Your task to perform on an android device: Empty the shopping cart on newegg.com. Search for "razer thresher" on newegg.com, select the first entry, and add it to the cart. Image 0: 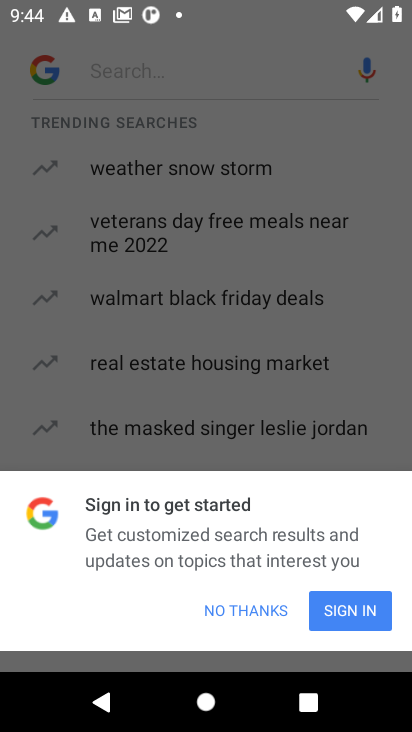
Step 0: press home button
Your task to perform on an android device: Empty the shopping cart on newegg.com. Search for "razer thresher" on newegg.com, select the first entry, and add it to the cart. Image 1: 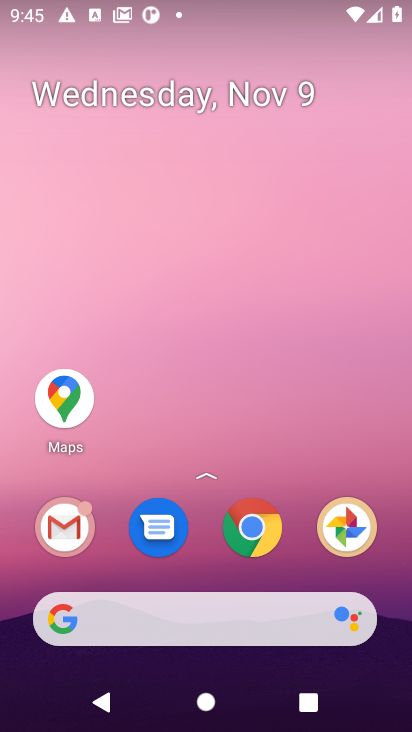
Step 1: click (259, 521)
Your task to perform on an android device: Empty the shopping cart on newegg.com. Search for "razer thresher" on newegg.com, select the first entry, and add it to the cart. Image 2: 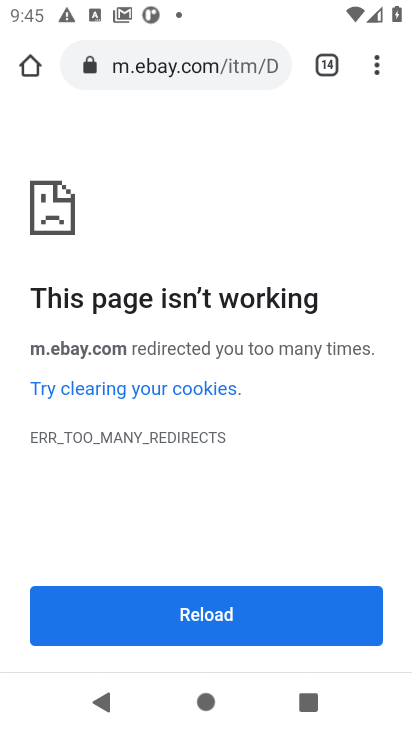
Step 2: click (157, 67)
Your task to perform on an android device: Empty the shopping cart on newegg.com. Search for "razer thresher" on newegg.com, select the first entry, and add it to the cart. Image 3: 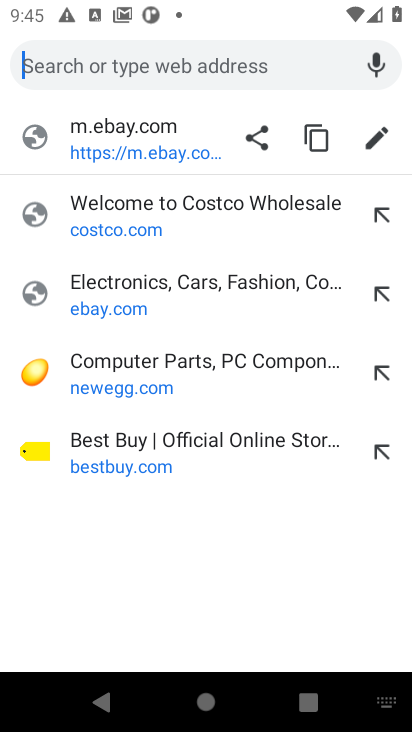
Step 3: click (103, 376)
Your task to perform on an android device: Empty the shopping cart on newegg.com. Search for "razer thresher" on newegg.com, select the first entry, and add it to the cart. Image 4: 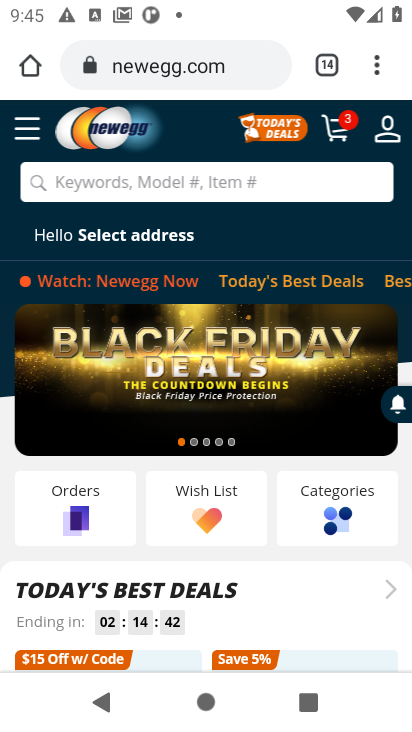
Step 4: click (340, 129)
Your task to perform on an android device: Empty the shopping cart on newegg.com. Search for "razer thresher" on newegg.com, select the first entry, and add it to the cart. Image 5: 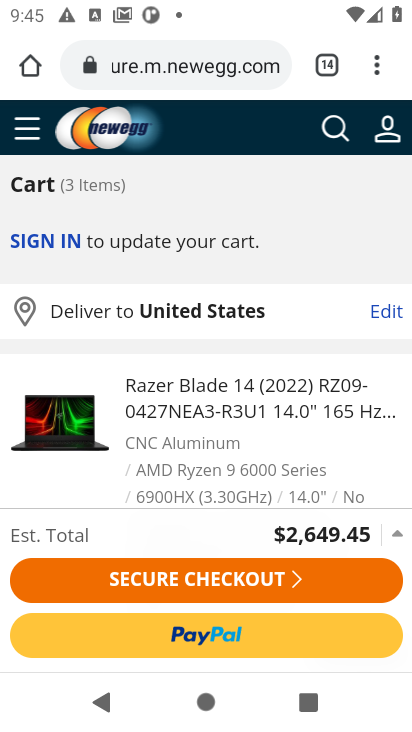
Step 5: drag from (234, 391) to (234, 237)
Your task to perform on an android device: Empty the shopping cart on newegg.com. Search for "razer thresher" on newegg.com, select the first entry, and add it to the cart. Image 6: 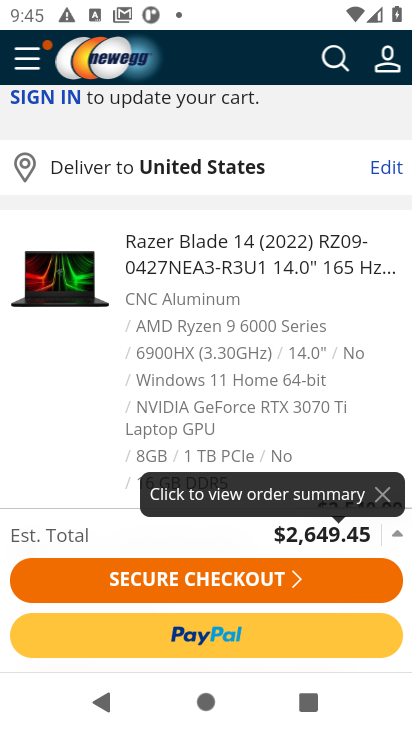
Step 6: drag from (164, 368) to (186, 201)
Your task to perform on an android device: Empty the shopping cart on newegg.com. Search for "razer thresher" on newegg.com, select the first entry, and add it to the cart. Image 7: 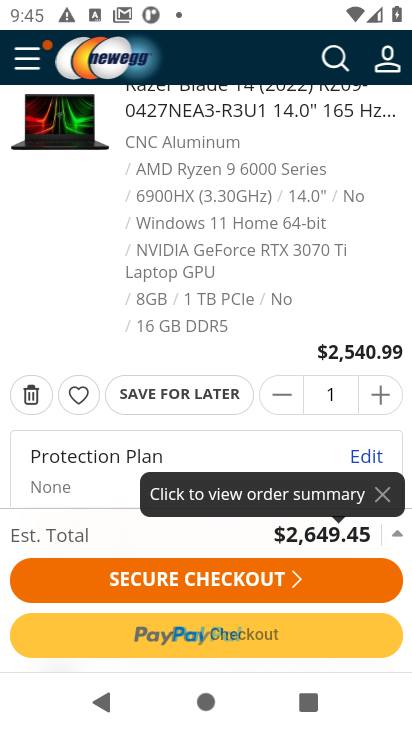
Step 7: click (36, 400)
Your task to perform on an android device: Empty the shopping cart on newegg.com. Search for "razer thresher" on newegg.com, select the first entry, and add it to the cart. Image 8: 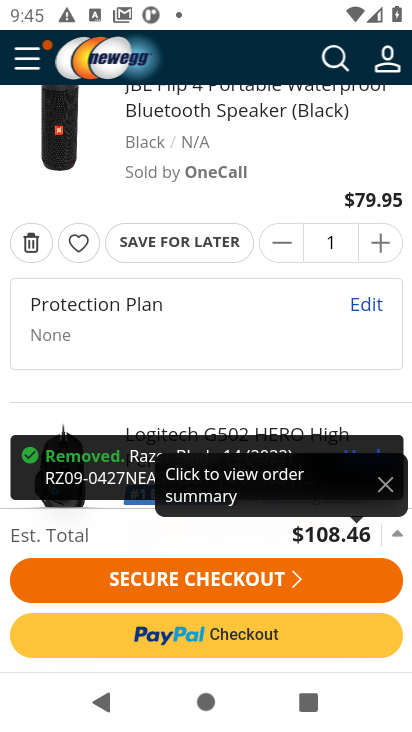
Step 8: click (34, 248)
Your task to perform on an android device: Empty the shopping cart on newegg.com. Search for "razer thresher" on newegg.com, select the first entry, and add it to the cart. Image 9: 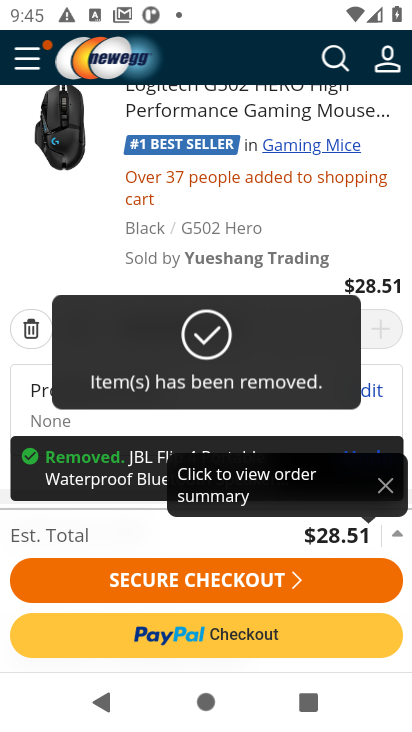
Step 9: click (32, 320)
Your task to perform on an android device: Empty the shopping cart on newegg.com. Search for "razer thresher" on newegg.com, select the first entry, and add it to the cart. Image 10: 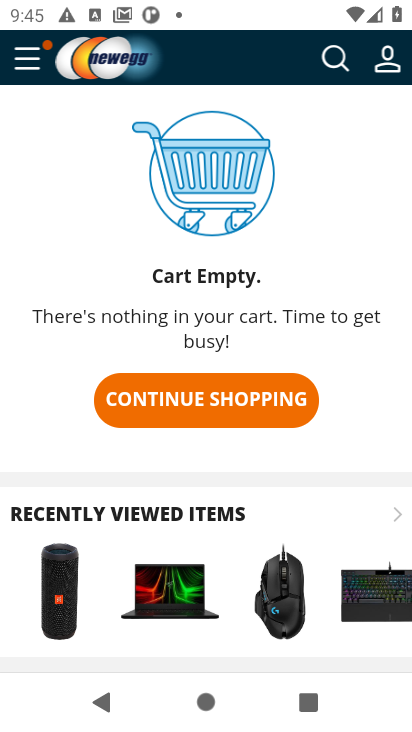
Step 10: click (333, 59)
Your task to perform on an android device: Empty the shopping cart on newegg.com. Search for "razer thresher" on newegg.com, select the first entry, and add it to the cart. Image 11: 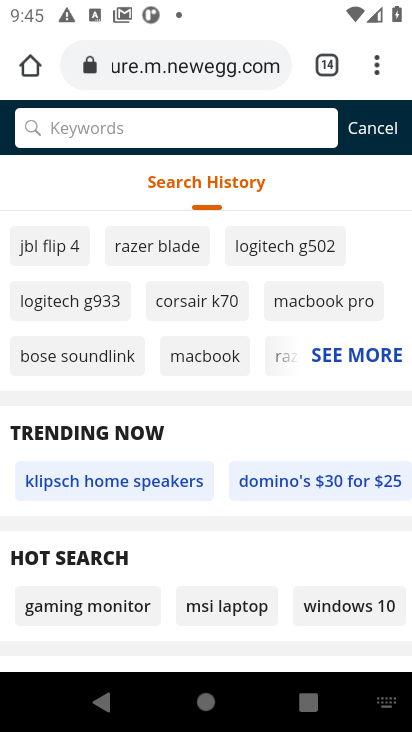
Step 11: type "razer thresher"
Your task to perform on an android device: Empty the shopping cart on newegg.com. Search for "razer thresher" on newegg.com, select the first entry, and add it to the cart. Image 12: 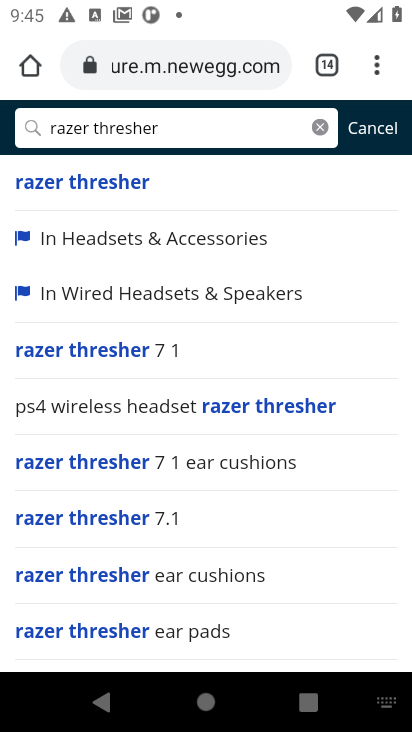
Step 12: click (105, 189)
Your task to perform on an android device: Empty the shopping cart on newegg.com. Search for "razer thresher" on newegg.com, select the first entry, and add it to the cart. Image 13: 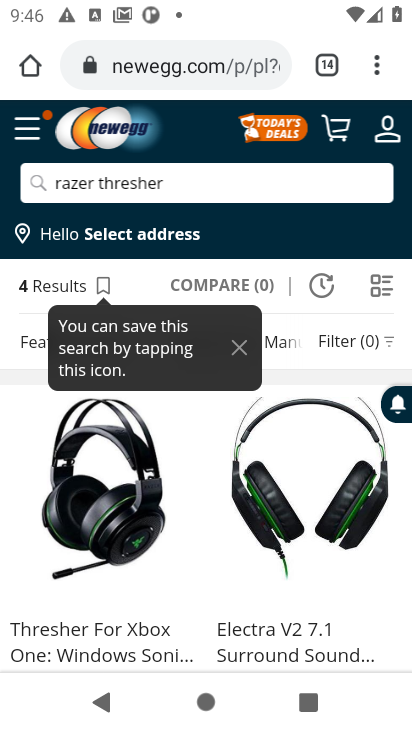
Step 13: drag from (123, 483) to (123, 327)
Your task to perform on an android device: Empty the shopping cart on newegg.com. Search for "razer thresher" on newegg.com, select the first entry, and add it to the cart. Image 14: 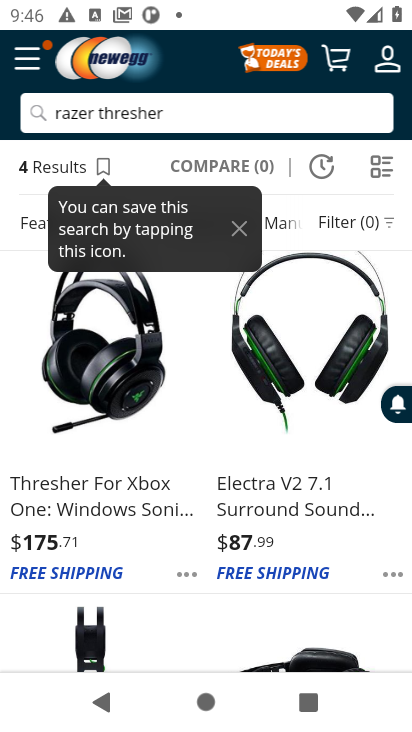
Step 14: drag from (122, 552) to (143, 459)
Your task to perform on an android device: Empty the shopping cart on newegg.com. Search for "razer thresher" on newegg.com, select the first entry, and add it to the cart. Image 15: 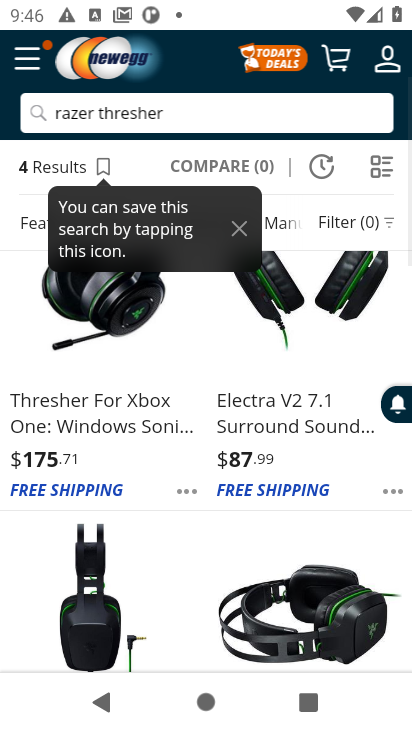
Step 15: click (124, 402)
Your task to perform on an android device: Empty the shopping cart on newegg.com. Search for "razer thresher" on newegg.com, select the first entry, and add it to the cart. Image 16: 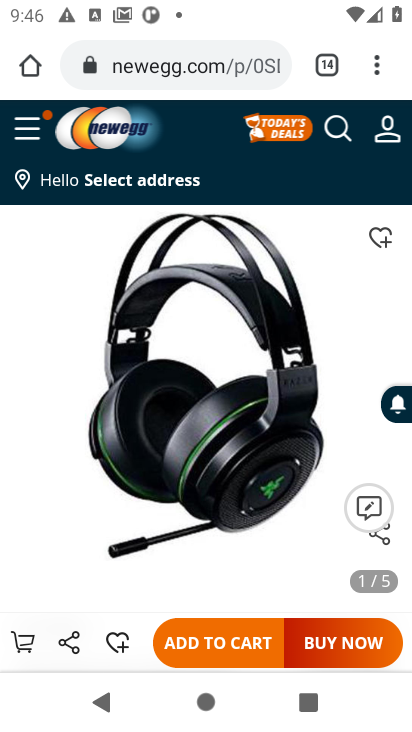
Step 16: task complete